Your task to perform on an android device: What's the weather like inToronto? Image 0: 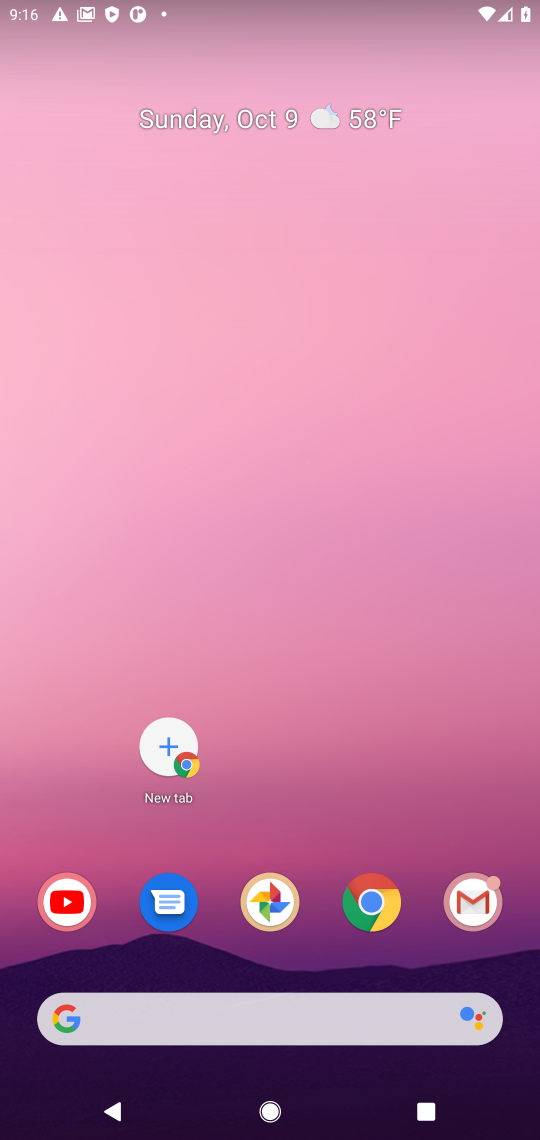
Step 0: click (389, 919)
Your task to perform on an android device: What's the weather like inToronto? Image 1: 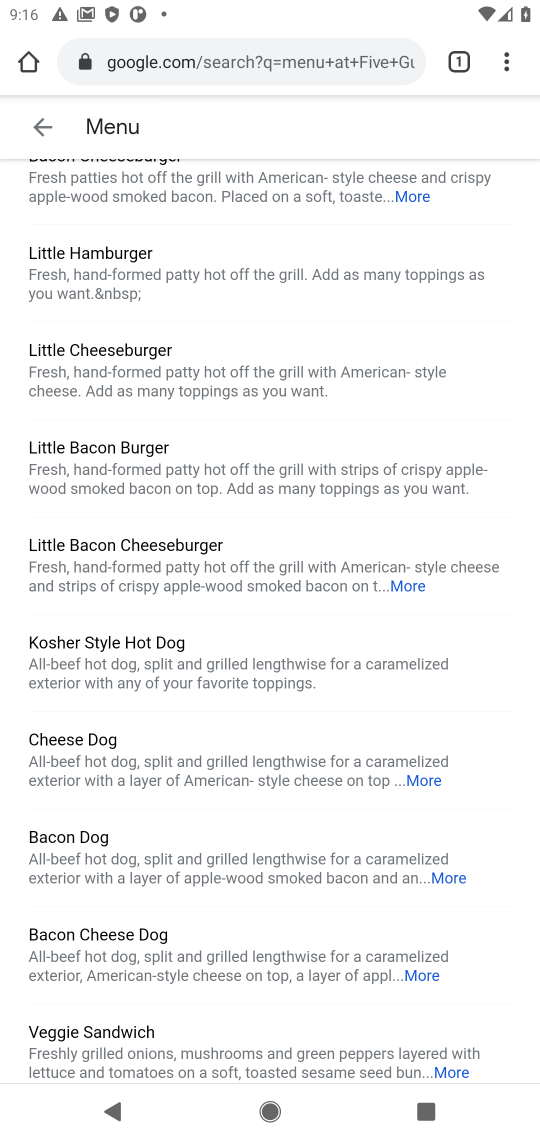
Step 1: click (248, 57)
Your task to perform on an android device: What's the weather like inToronto? Image 2: 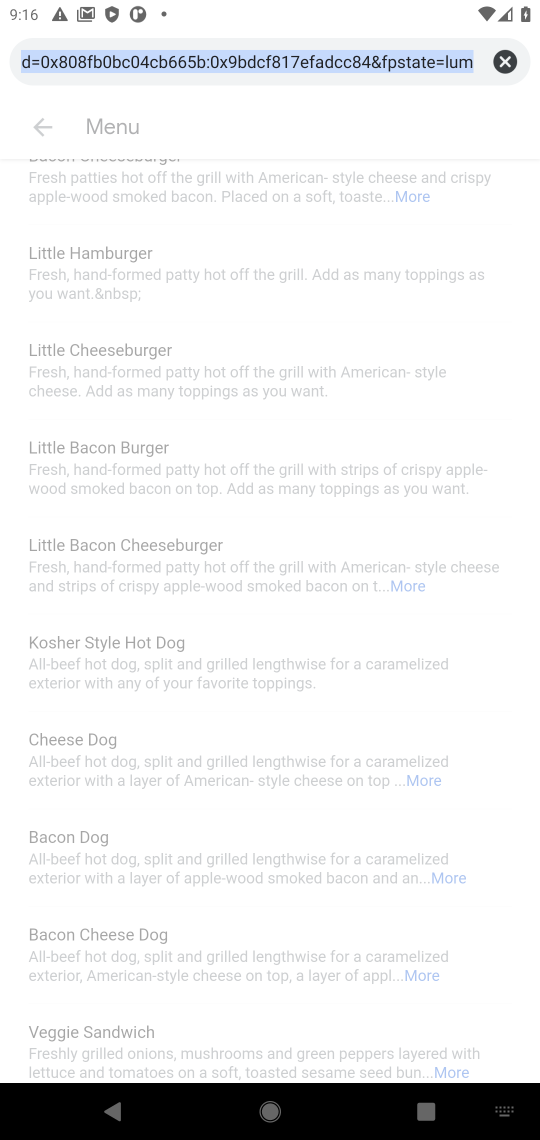
Step 2: type "weather like inToronto"
Your task to perform on an android device: What's the weather like inToronto? Image 3: 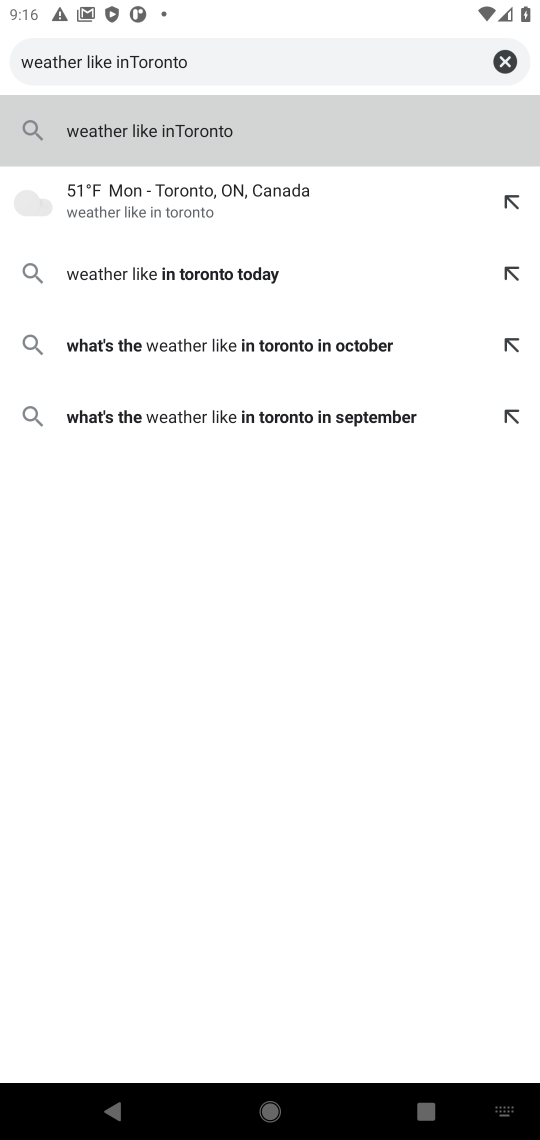
Step 3: type ""
Your task to perform on an android device: What's the weather like inToronto? Image 4: 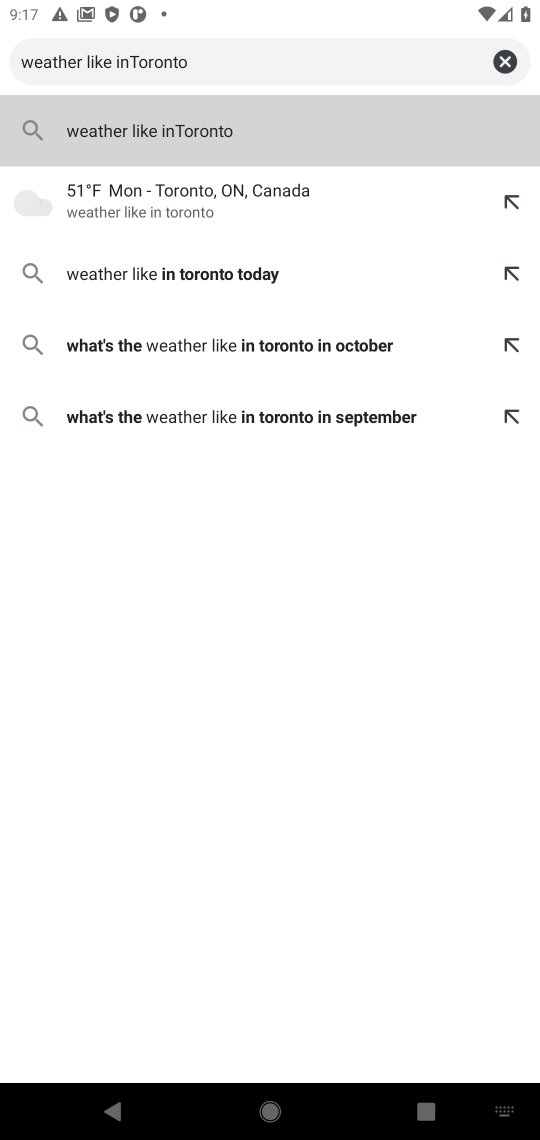
Step 4: click (187, 201)
Your task to perform on an android device: What's the weather like inToronto? Image 5: 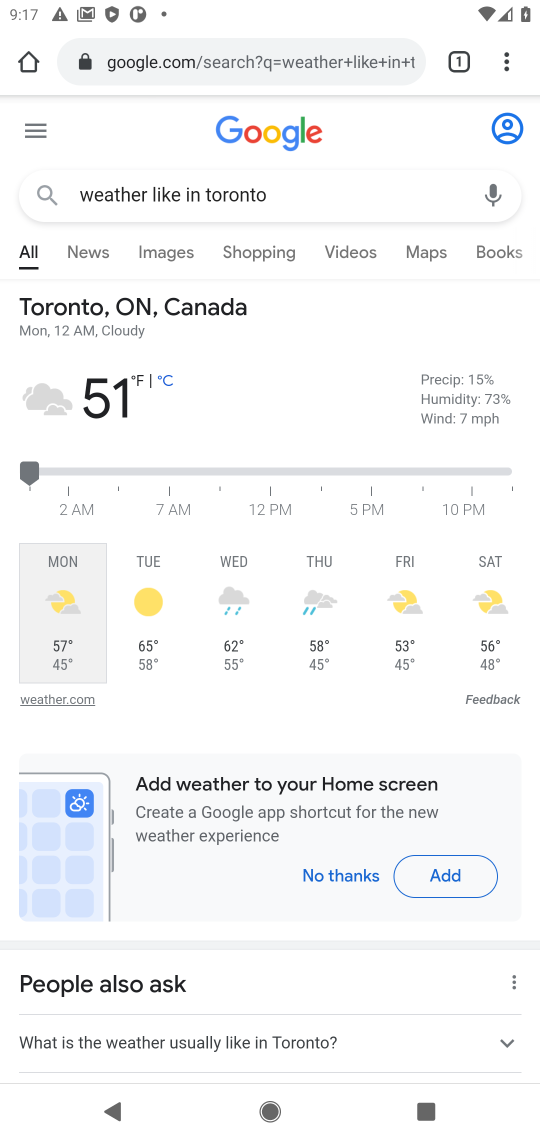
Step 5: task complete